Your task to perform on an android device: check android version Image 0: 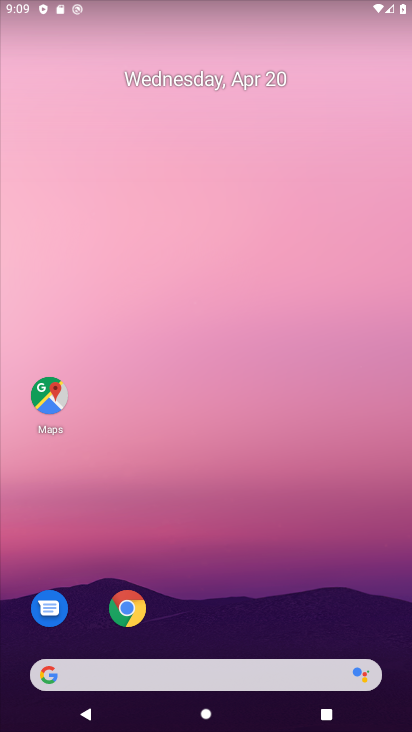
Step 0: drag from (175, 624) to (225, 47)
Your task to perform on an android device: check android version Image 1: 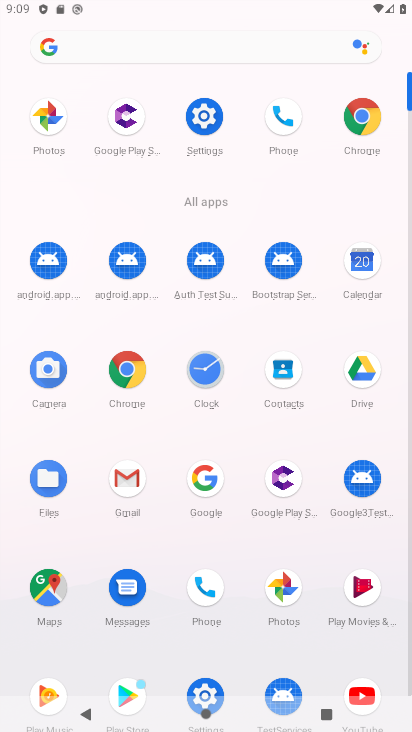
Step 1: click (201, 688)
Your task to perform on an android device: check android version Image 2: 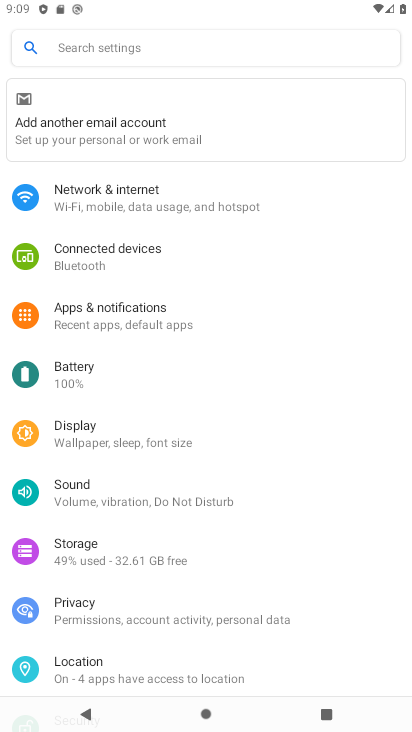
Step 2: drag from (130, 593) to (239, 123)
Your task to perform on an android device: check android version Image 3: 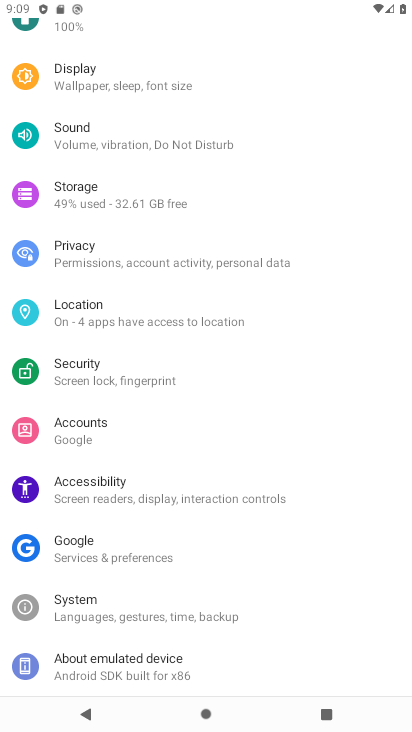
Step 3: click (125, 665)
Your task to perform on an android device: check android version Image 4: 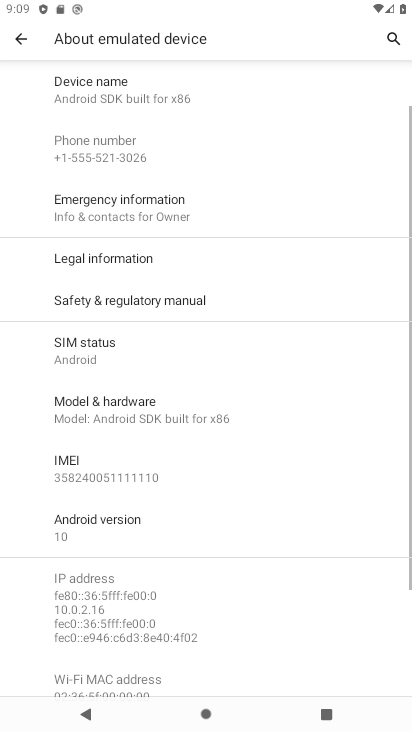
Step 4: click (130, 537)
Your task to perform on an android device: check android version Image 5: 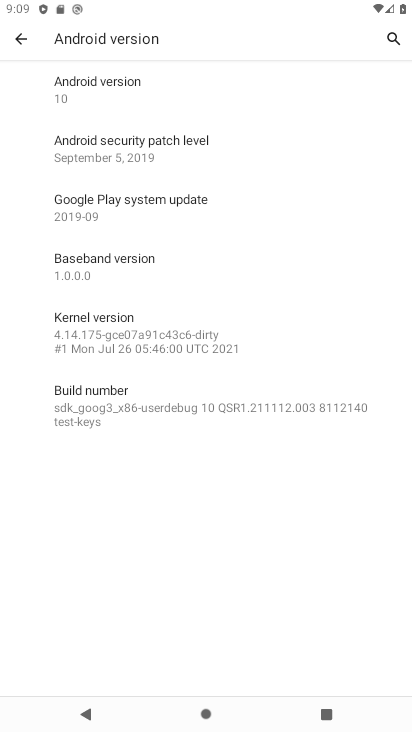
Step 5: task complete